Your task to perform on an android device: Open Google Chrome and open the bookmarks view Image 0: 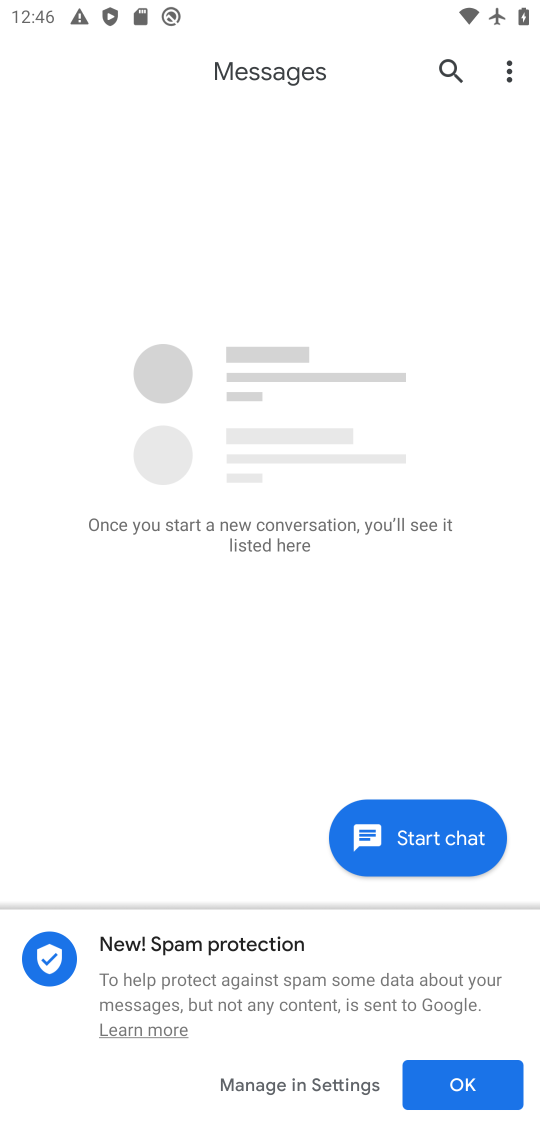
Step 0: press back button
Your task to perform on an android device: Open Google Chrome and open the bookmarks view Image 1: 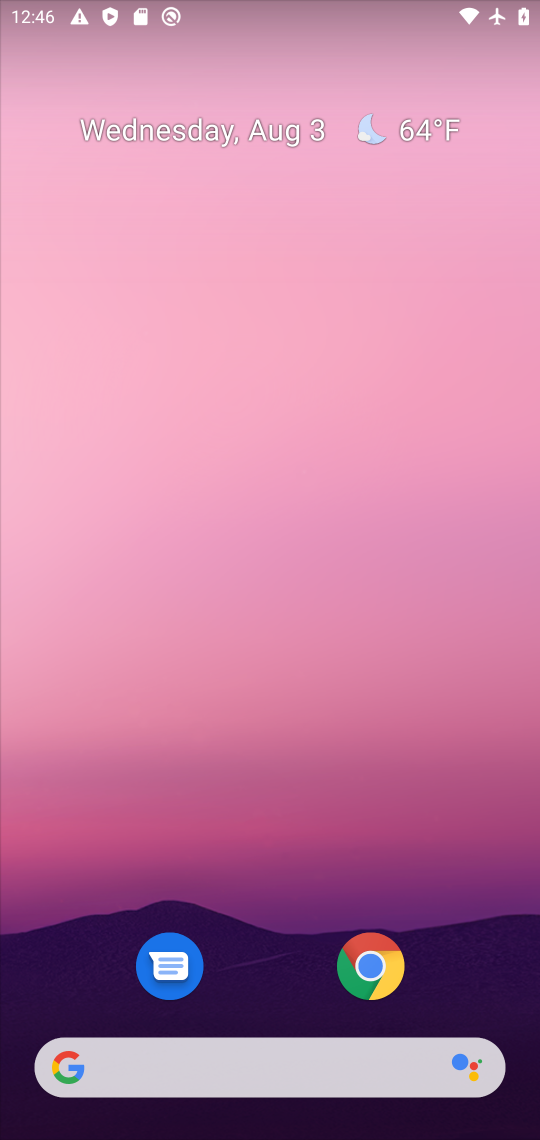
Step 1: click (379, 954)
Your task to perform on an android device: Open Google Chrome and open the bookmarks view Image 2: 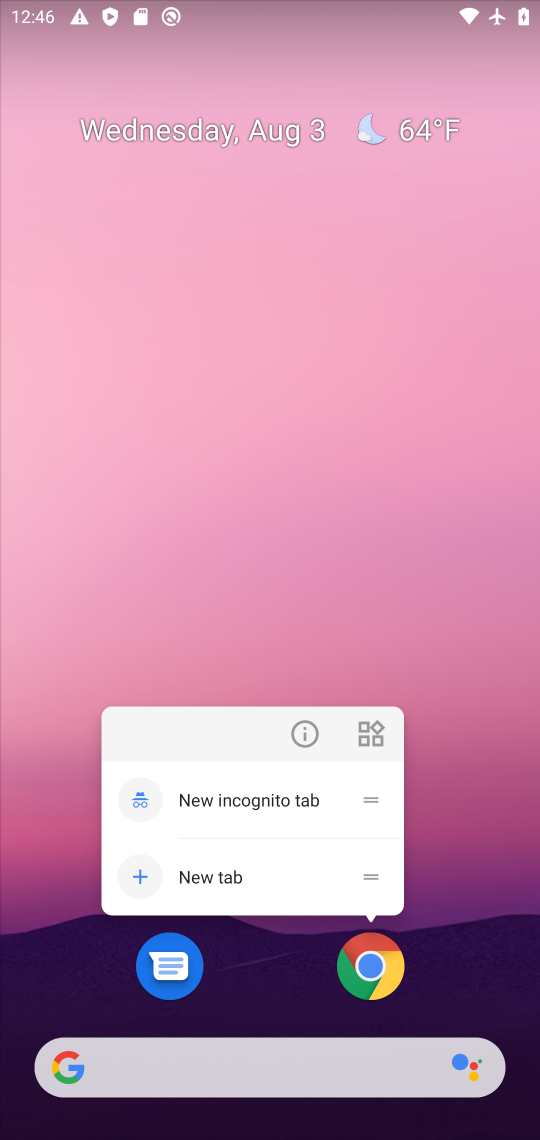
Step 2: click (379, 954)
Your task to perform on an android device: Open Google Chrome and open the bookmarks view Image 3: 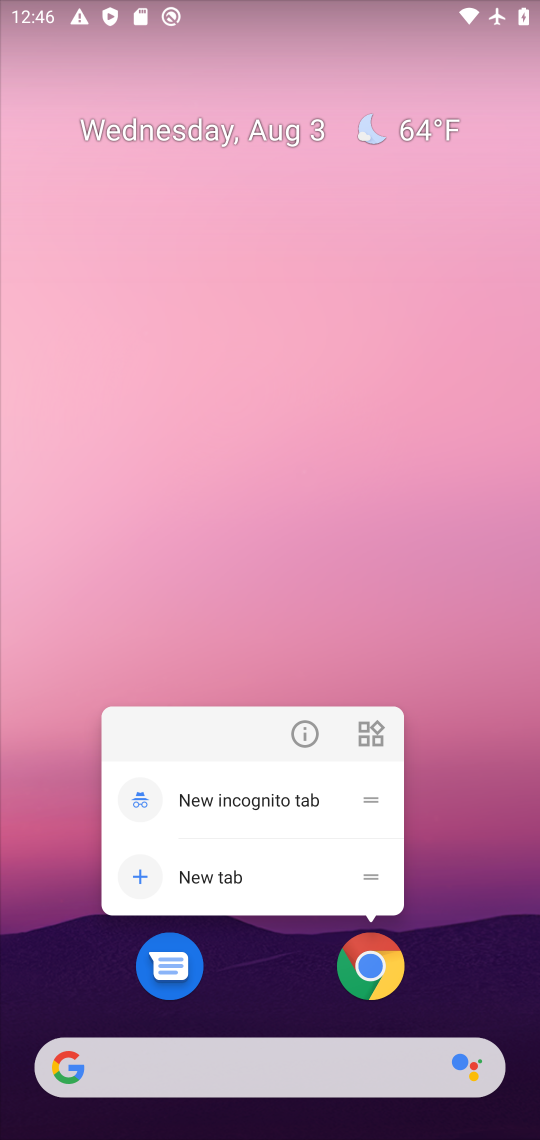
Step 3: click (379, 954)
Your task to perform on an android device: Open Google Chrome and open the bookmarks view Image 4: 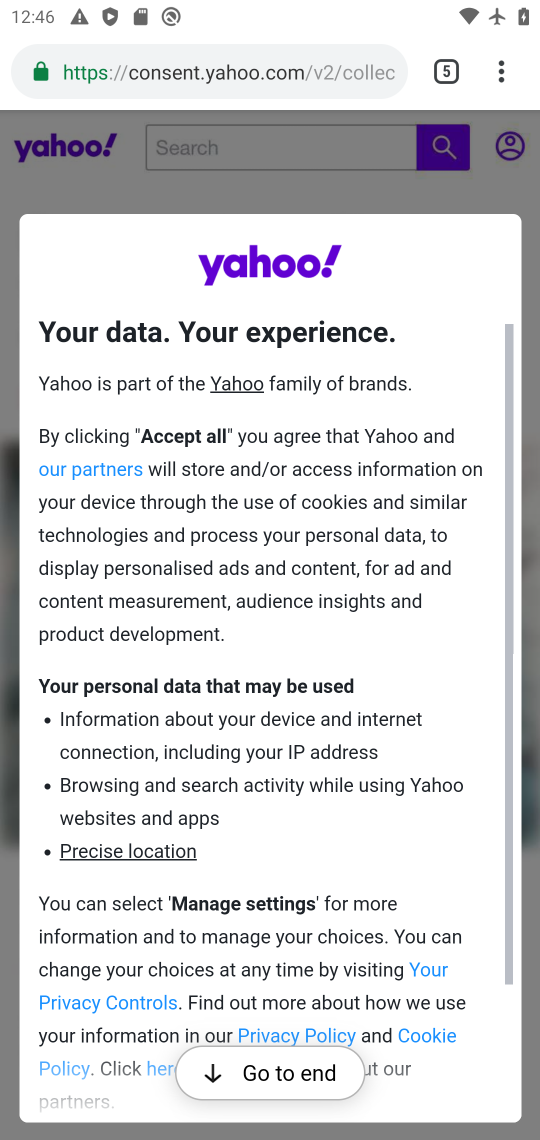
Step 4: click (486, 79)
Your task to perform on an android device: Open Google Chrome and open the bookmarks view Image 5: 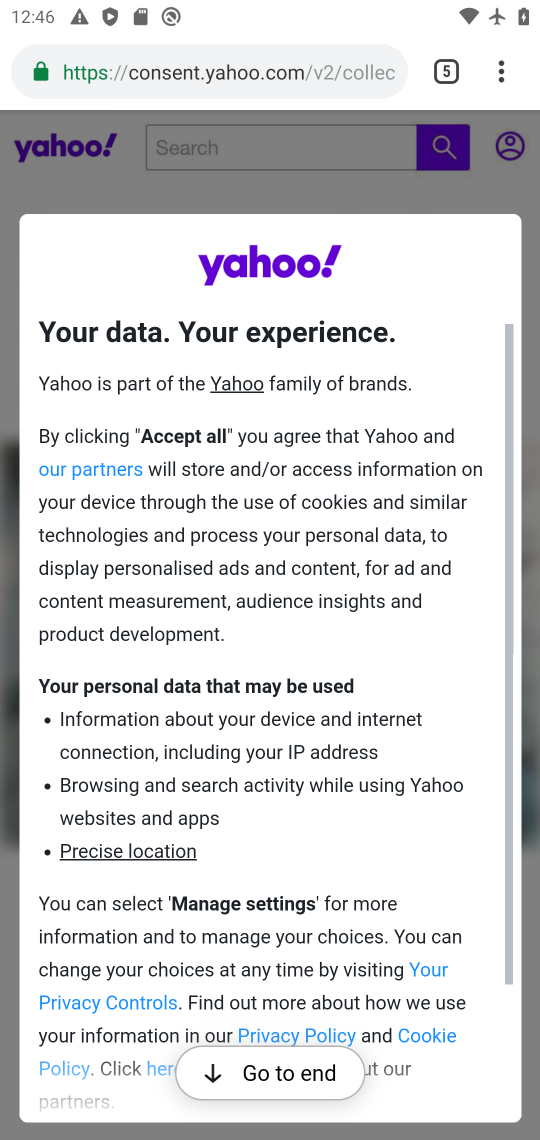
Step 5: click (499, 70)
Your task to perform on an android device: Open Google Chrome and open the bookmarks view Image 6: 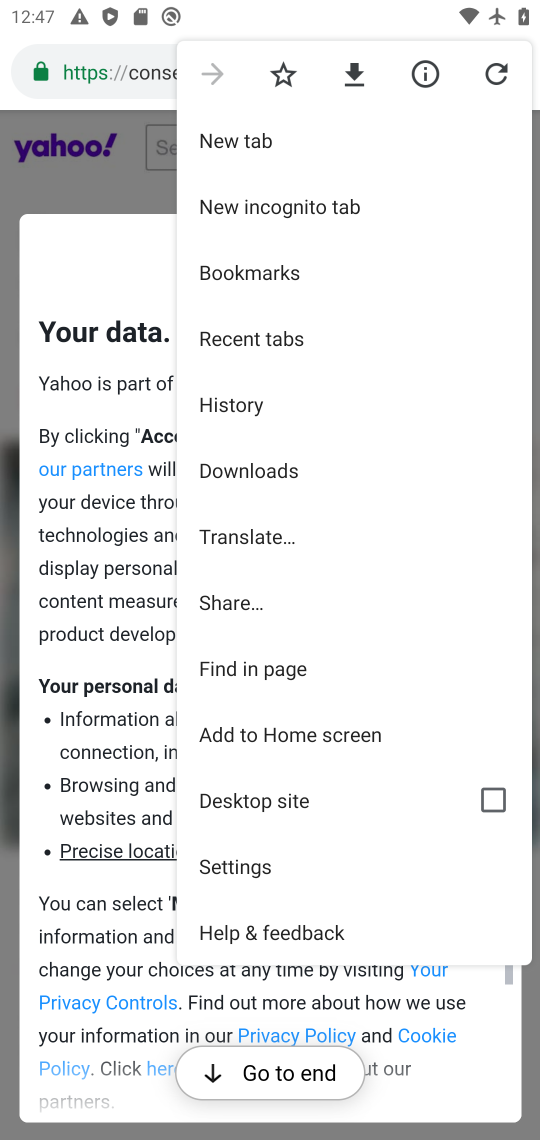
Step 6: click (314, 277)
Your task to perform on an android device: Open Google Chrome and open the bookmarks view Image 7: 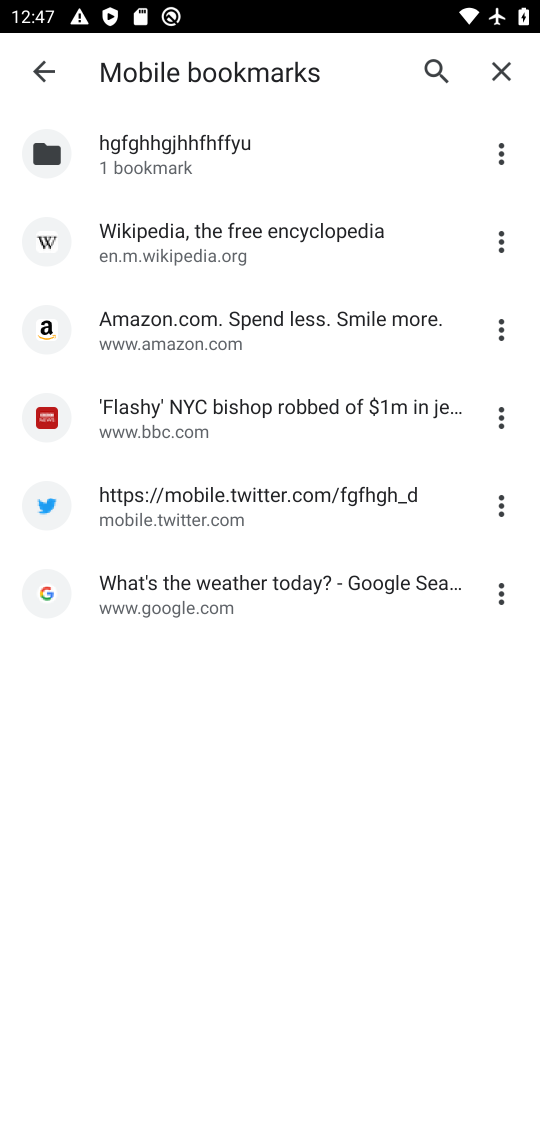
Step 7: task complete